Your task to perform on an android device: toggle sleep mode Image 0: 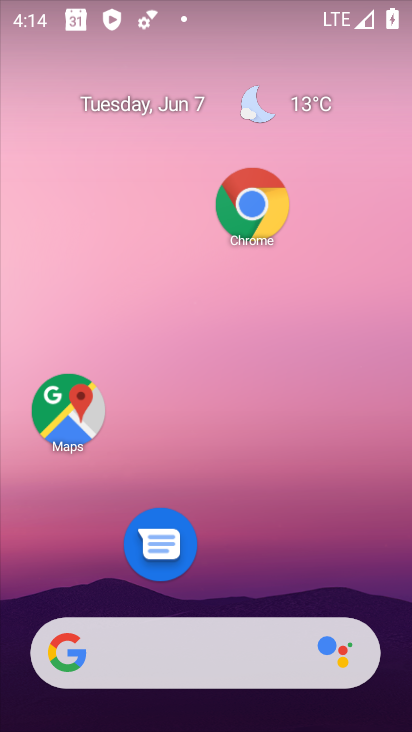
Step 0: press home button
Your task to perform on an android device: toggle sleep mode Image 1: 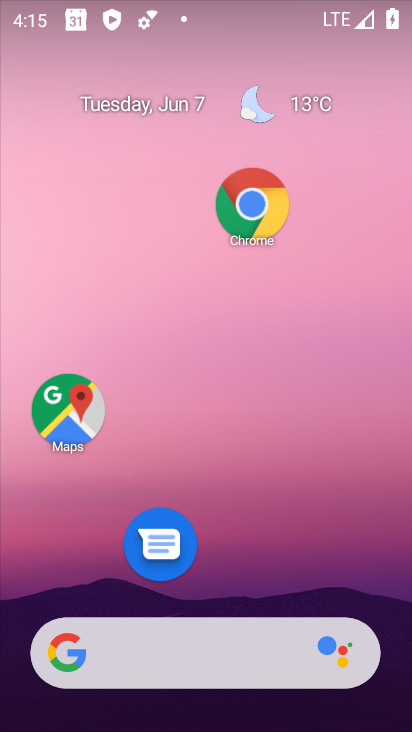
Step 1: drag from (223, 588) to (210, 65)
Your task to perform on an android device: toggle sleep mode Image 2: 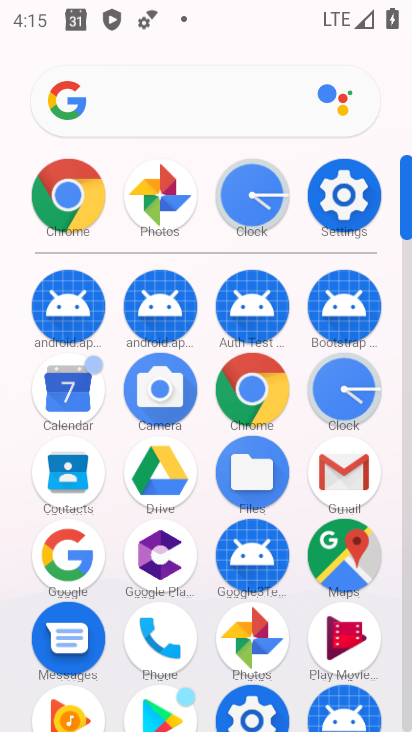
Step 2: click (341, 189)
Your task to perform on an android device: toggle sleep mode Image 3: 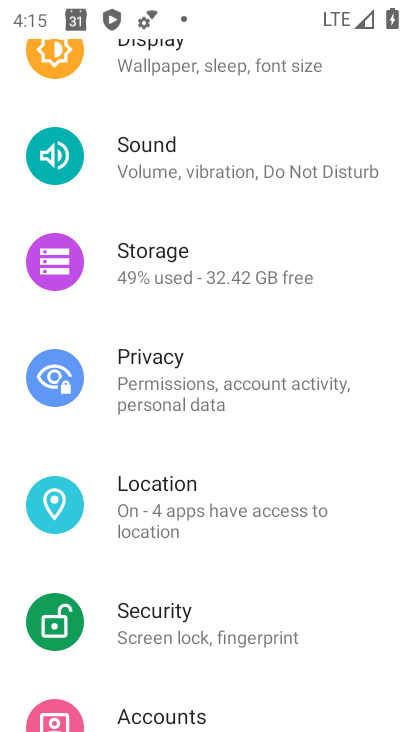
Step 3: click (160, 61)
Your task to perform on an android device: toggle sleep mode Image 4: 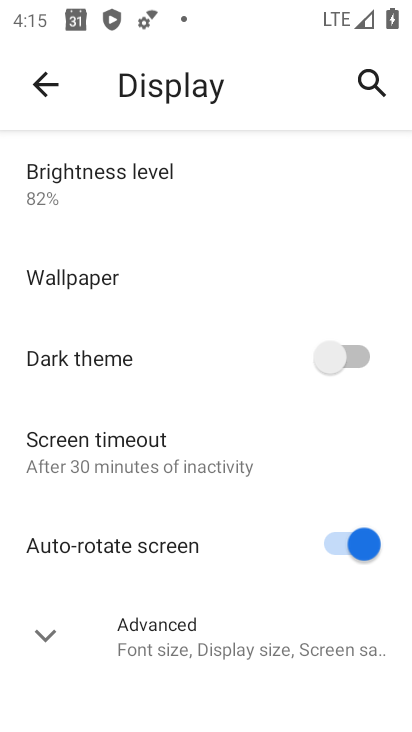
Step 4: click (34, 641)
Your task to perform on an android device: toggle sleep mode Image 5: 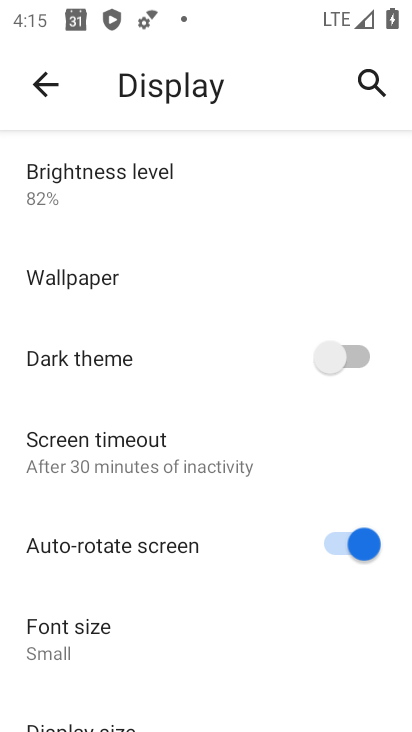
Step 5: task complete